Your task to perform on an android device: change notifications settings Image 0: 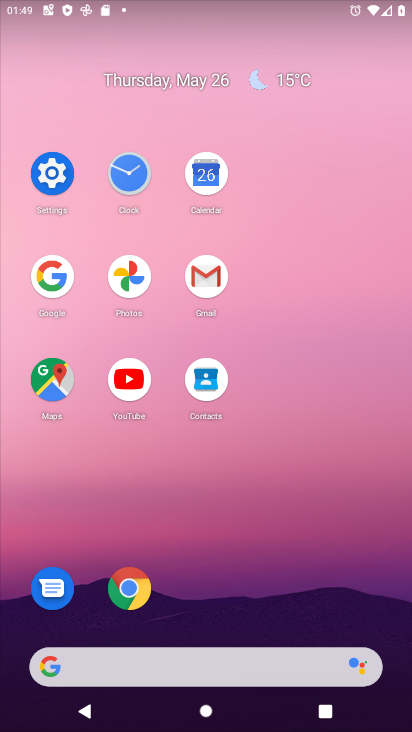
Step 0: click (49, 171)
Your task to perform on an android device: change notifications settings Image 1: 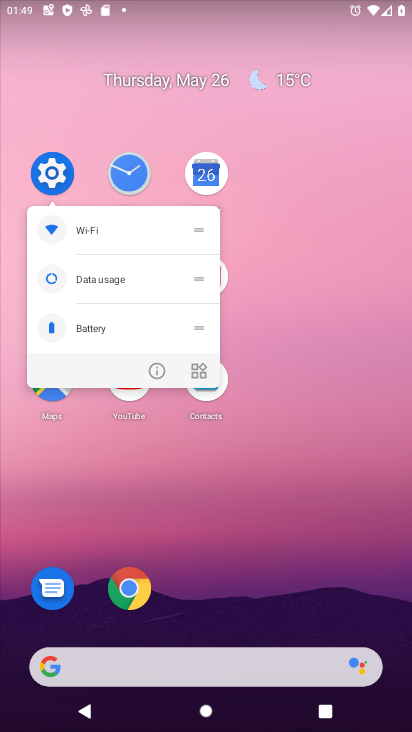
Step 1: click (56, 169)
Your task to perform on an android device: change notifications settings Image 2: 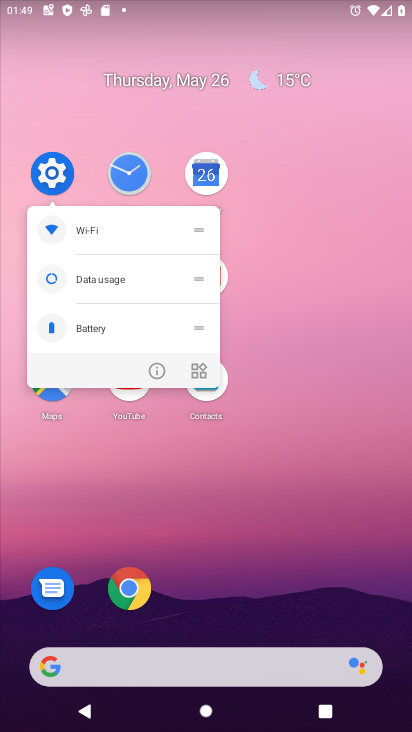
Step 2: click (54, 182)
Your task to perform on an android device: change notifications settings Image 3: 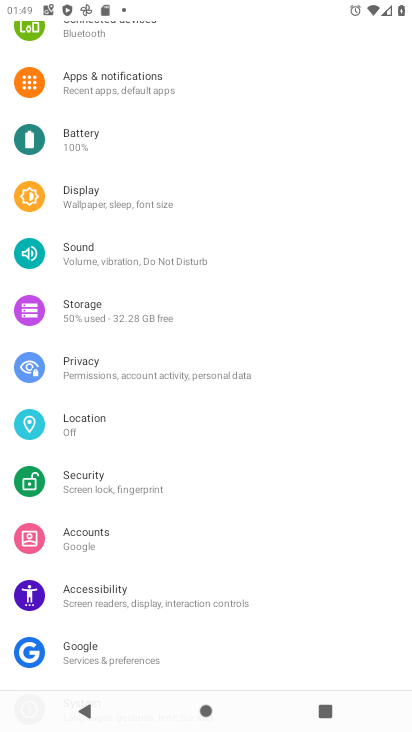
Step 3: drag from (247, 151) to (194, 376)
Your task to perform on an android device: change notifications settings Image 4: 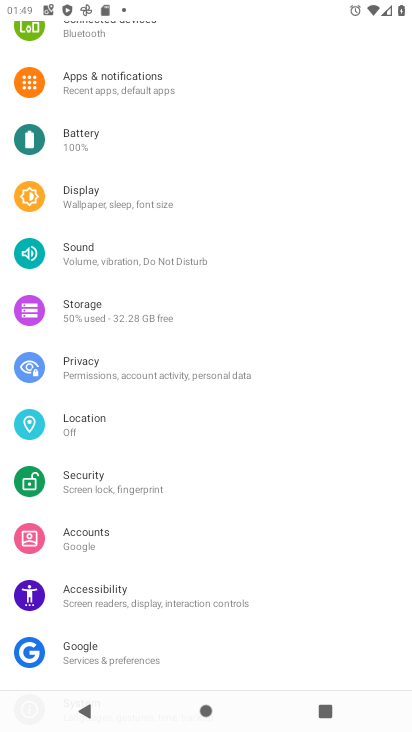
Step 4: click (160, 87)
Your task to perform on an android device: change notifications settings Image 5: 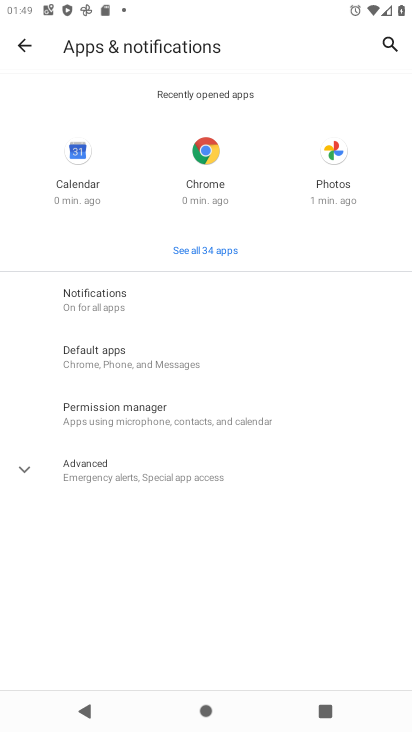
Step 5: task complete